Your task to perform on an android device: Search for "razer huntsman" on ebay.com, select the first entry, add it to the cart, then select checkout. Image 0: 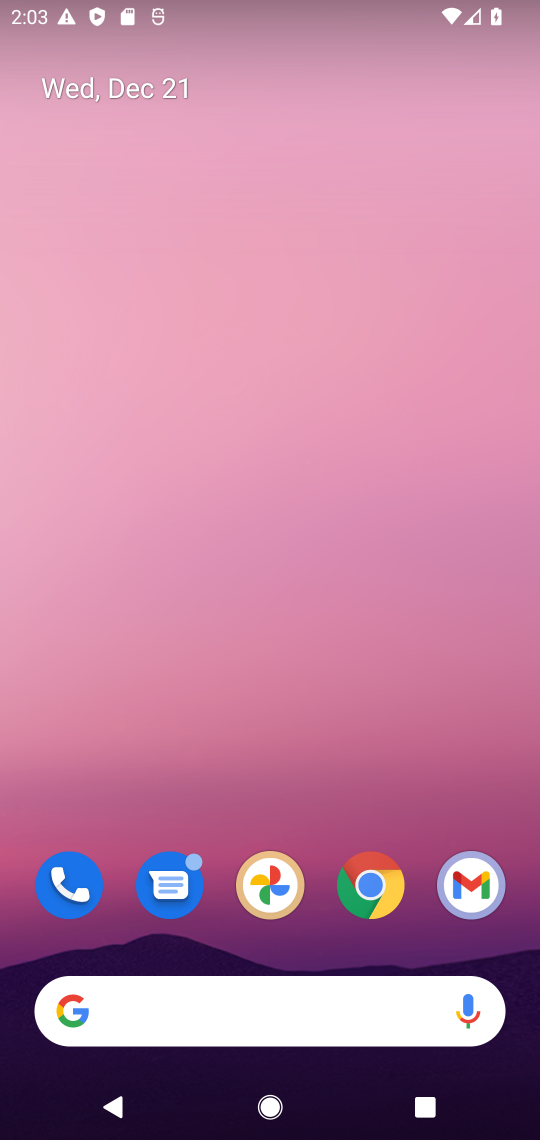
Step 0: drag from (278, 989) to (285, 538)
Your task to perform on an android device: Search for "razer huntsman" on ebay.com, select the first entry, add it to the cart, then select checkout. Image 1: 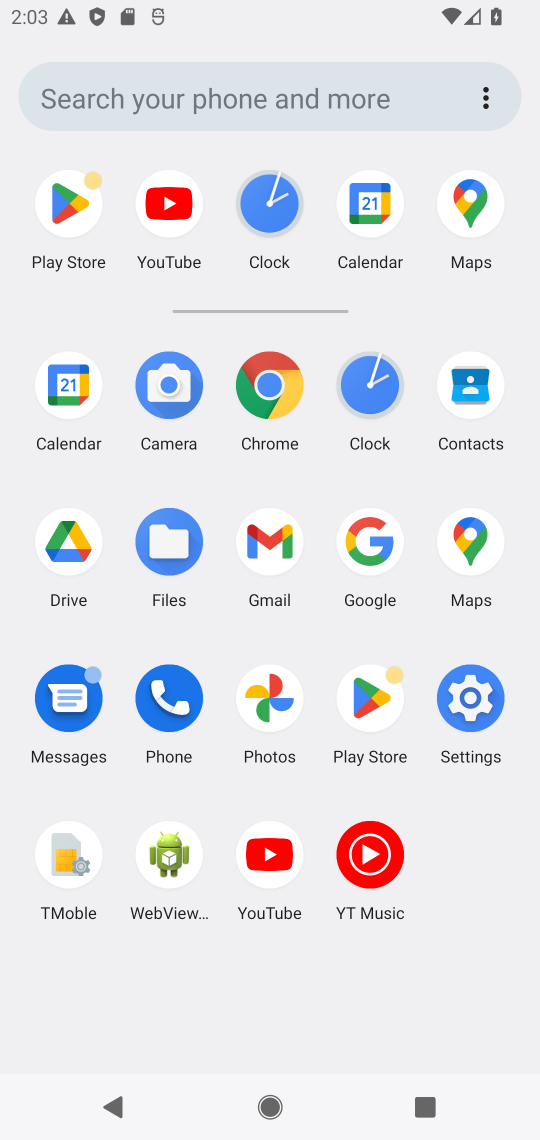
Step 1: click (371, 535)
Your task to perform on an android device: Search for "razer huntsman" on ebay.com, select the first entry, add it to the cart, then select checkout. Image 2: 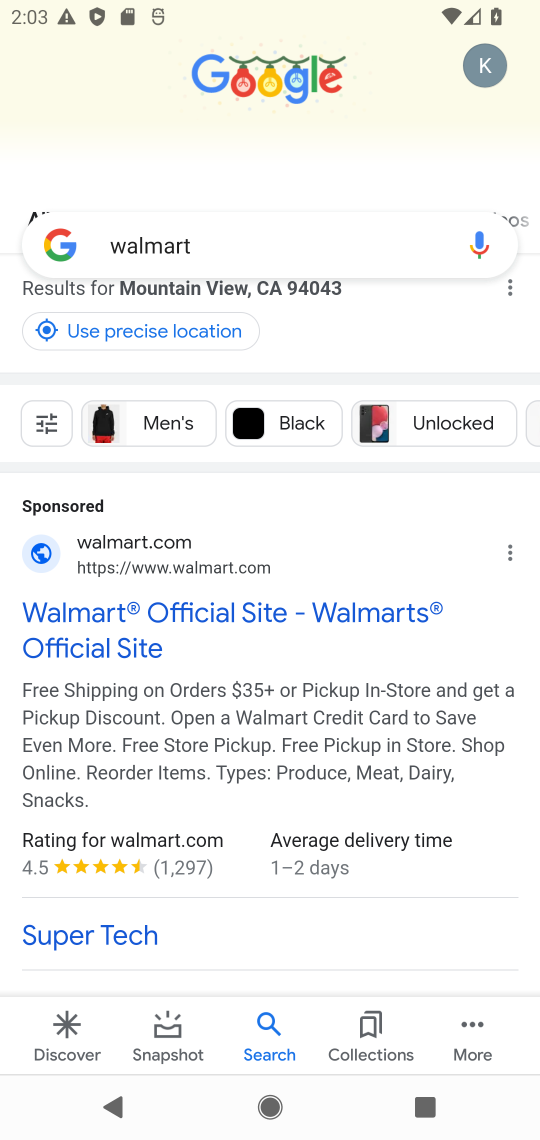
Step 2: click (158, 235)
Your task to perform on an android device: Search for "razer huntsman" on ebay.com, select the first entry, add it to the cart, then select checkout. Image 3: 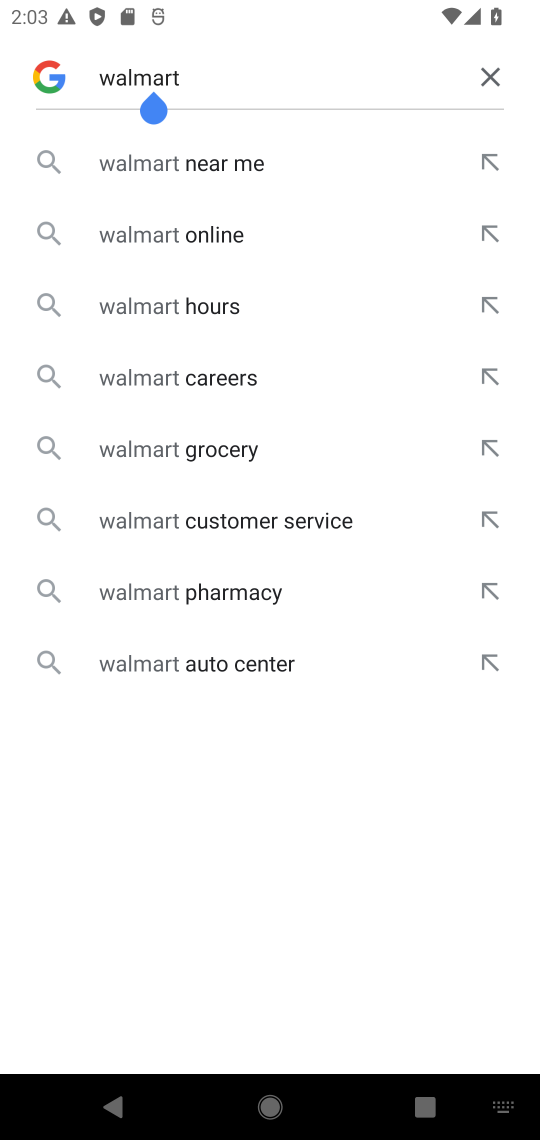
Step 3: click (491, 85)
Your task to perform on an android device: Search for "razer huntsman" on ebay.com, select the first entry, add it to the cart, then select checkout. Image 4: 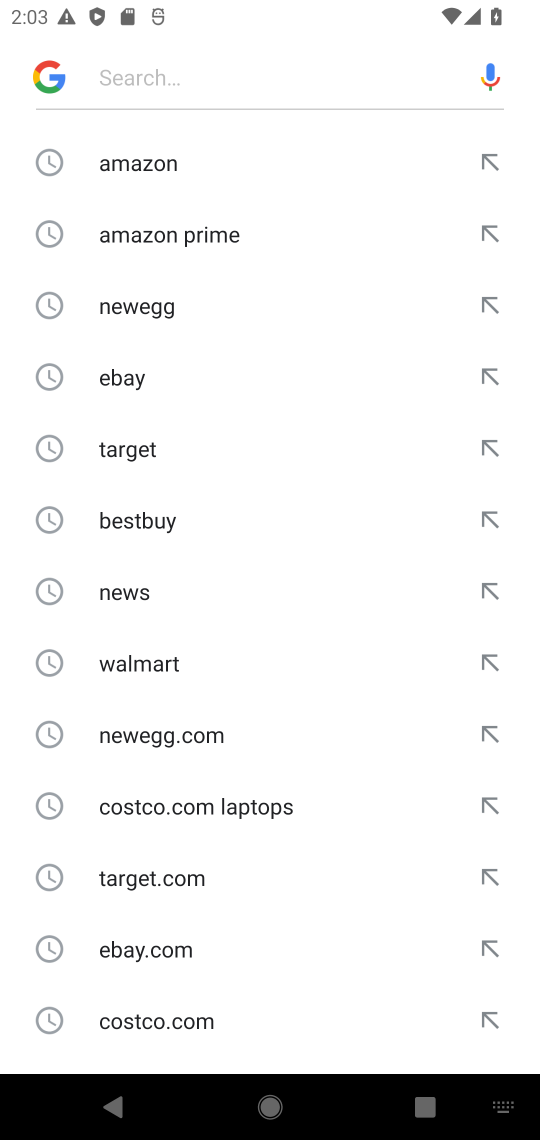
Step 4: click (118, 371)
Your task to perform on an android device: Search for "razer huntsman" on ebay.com, select the first entry, add it to the cart, then select checkout. Image 5: 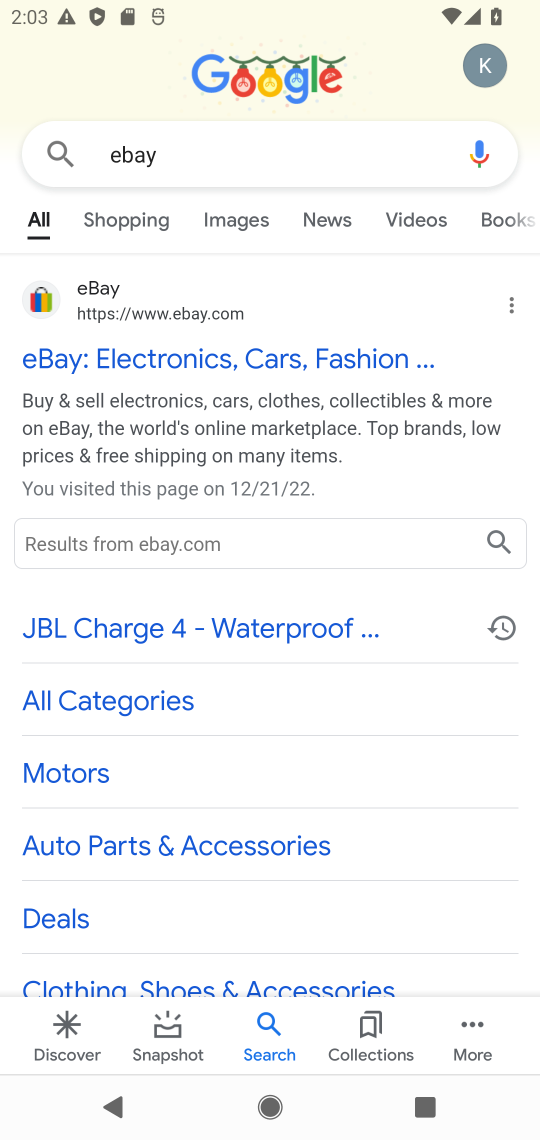
Step 5: click (160, 150)
Your task to perform on an android device: Search for "razer huntsman" on ebay.com, select the first entry, add it to the cart, then select checkout. Image 6: 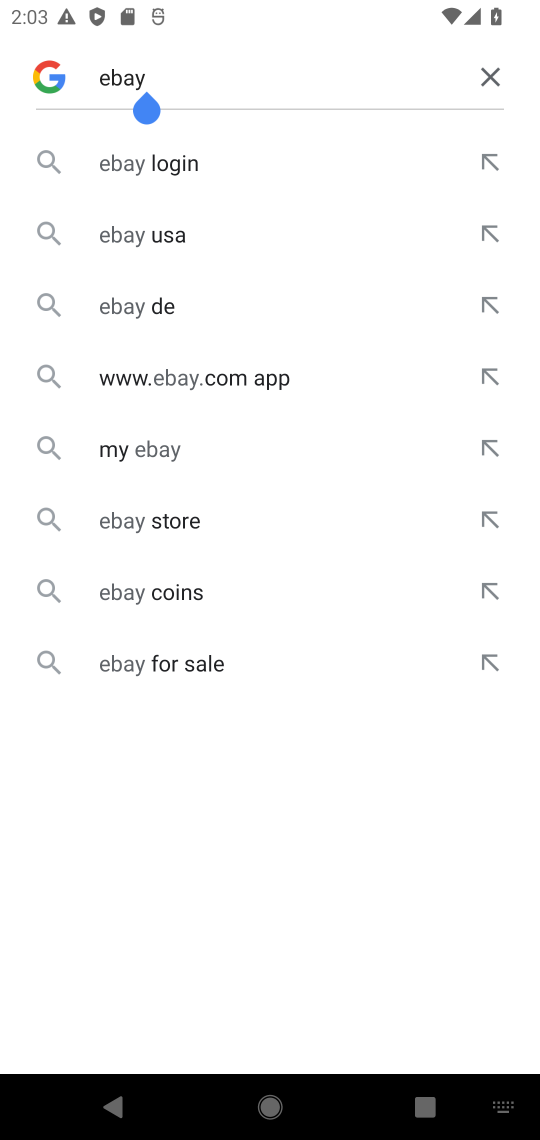
Step 6: click (490, 80)
Your task to perform on an android device: Search for "razer huntsman" on ebay.com, select the first entry, add it to the cart, then select checkout. Image 7: 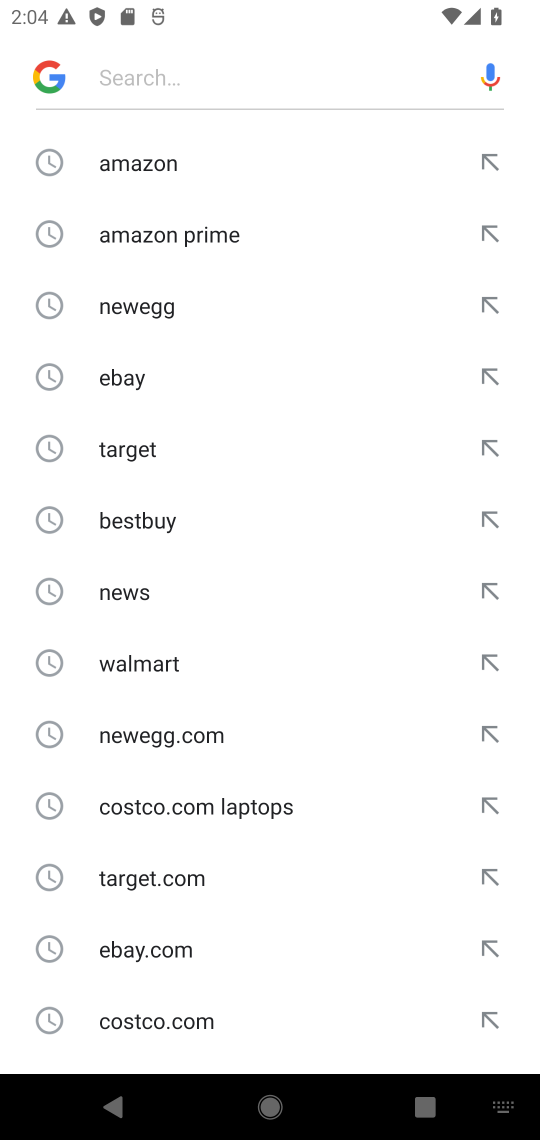
Step 7: click (128, 367)
Your task to perform on an android device: Search for "razer huntsman" on ebay.com, select the first entry, add it to the cart, then select checkout. Image 8: 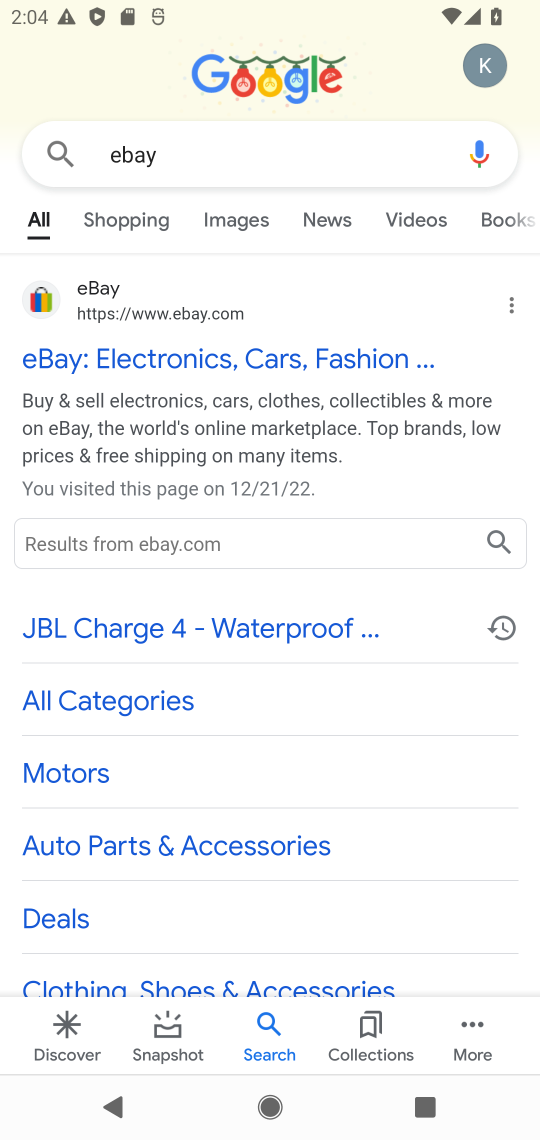
Step 8: click (128, 367)
Your task to perform on an android device: Search for "razer huntsman" on ebay.com, select the first entry, add it to the cart, then select checkout. Image 9: 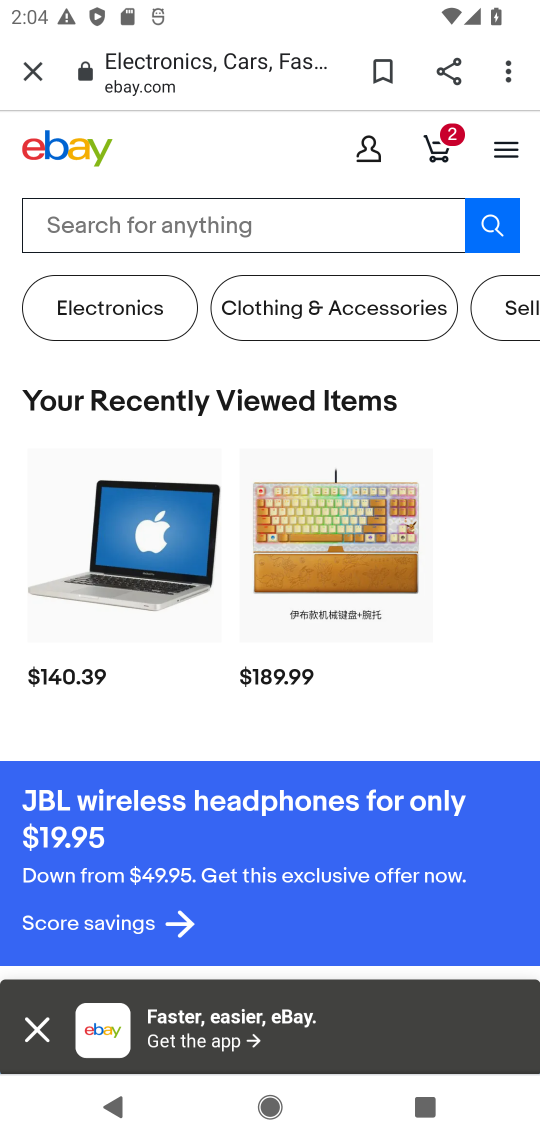
Step 9: click (82, 224)
Your task to perform on an android device: Search for "razer huntsman" on ebay.com, select the first entry, add it to the cart, then select checkout. Image 10: 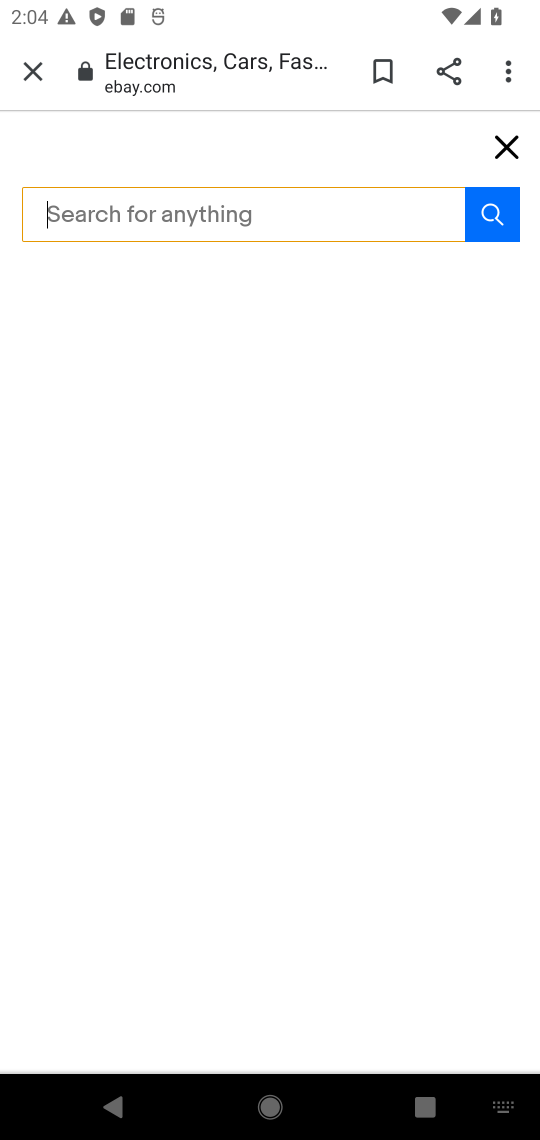
Step 10: type "razer huntsman"
Your task to perform on an android device: Search for "razer huntsman" on ebay.com, select the first entry, add it to the cart, then select checkout. Image 11: 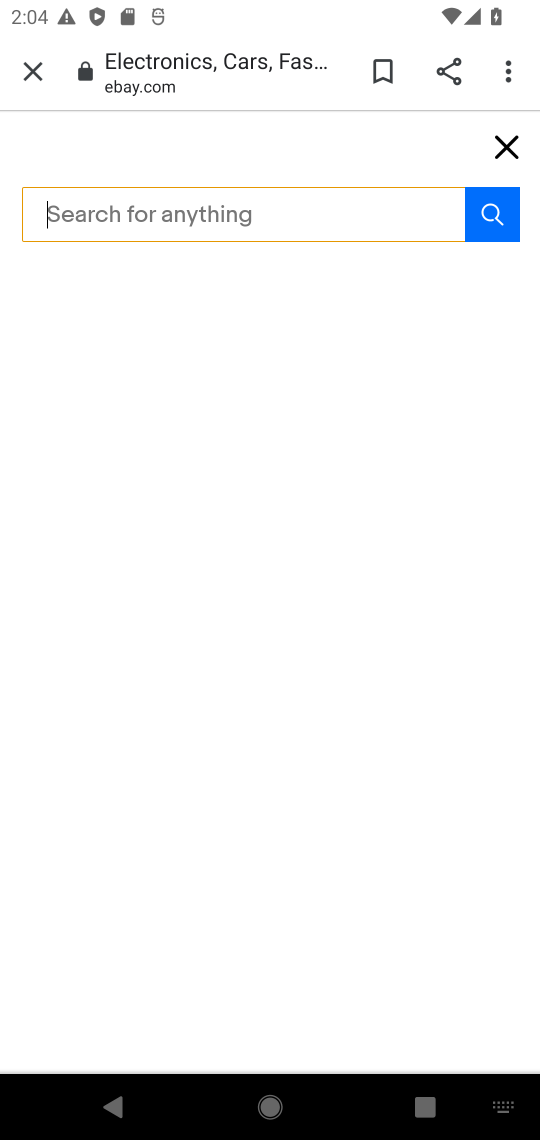
Step 11: click (485, 213)
Your task to perform on an android device: Search for "razer huntsman" on ebay.com, select the first entry, add it to the cart, then select checkout. Image 12: 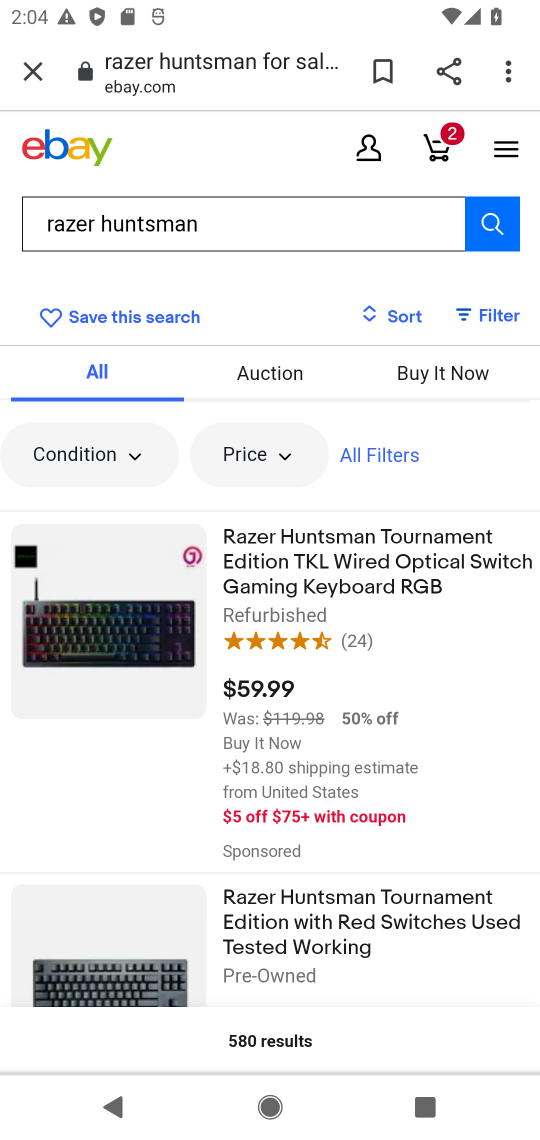
Step 12: click (293, 553)
Your task to perform on an android device: Search for "razer huntsman" on ebay.com, select the first entry, add it to the cart, then select checkout. Image 13: 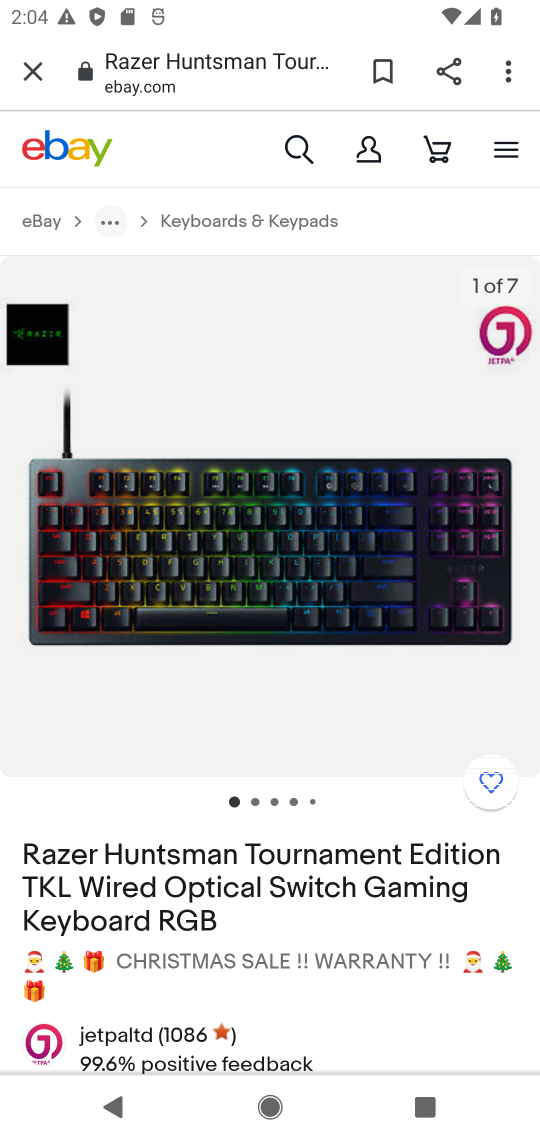
Step 13: drag from (295, 948) to (330, 675)
Your task to perform on an android device: Search for "razer huntsman" on ebay.com, select the first entry, add it to the cart, then select checkout. Image 14: 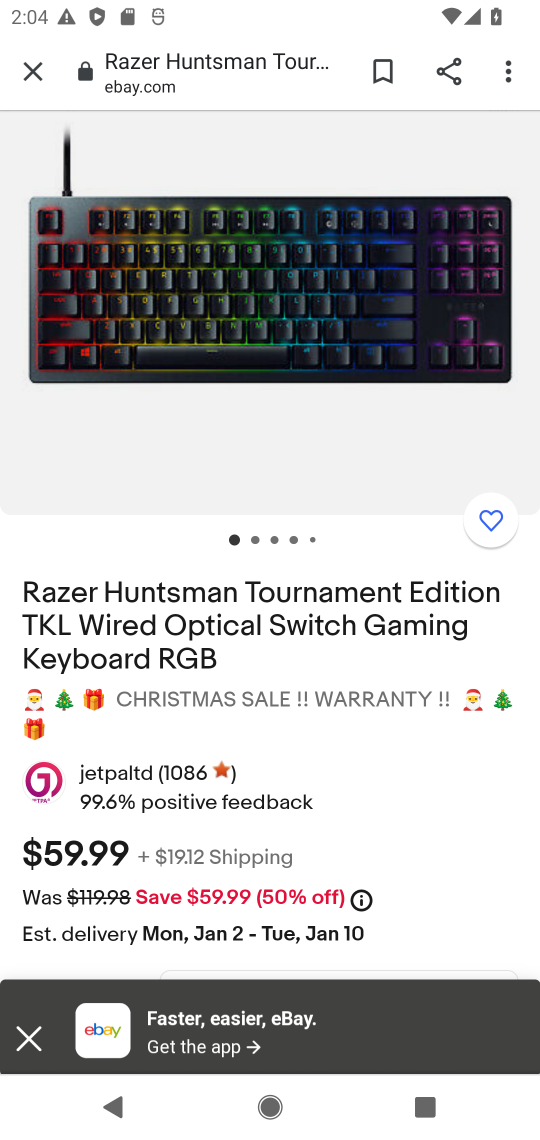
Step 14: drag from (314, 822) to (318, 560)
Your task to perform on an android device: Search for "razer huntsman" on ebay.com, select the first entry, add it to the cart, then select checkout. Image 15: 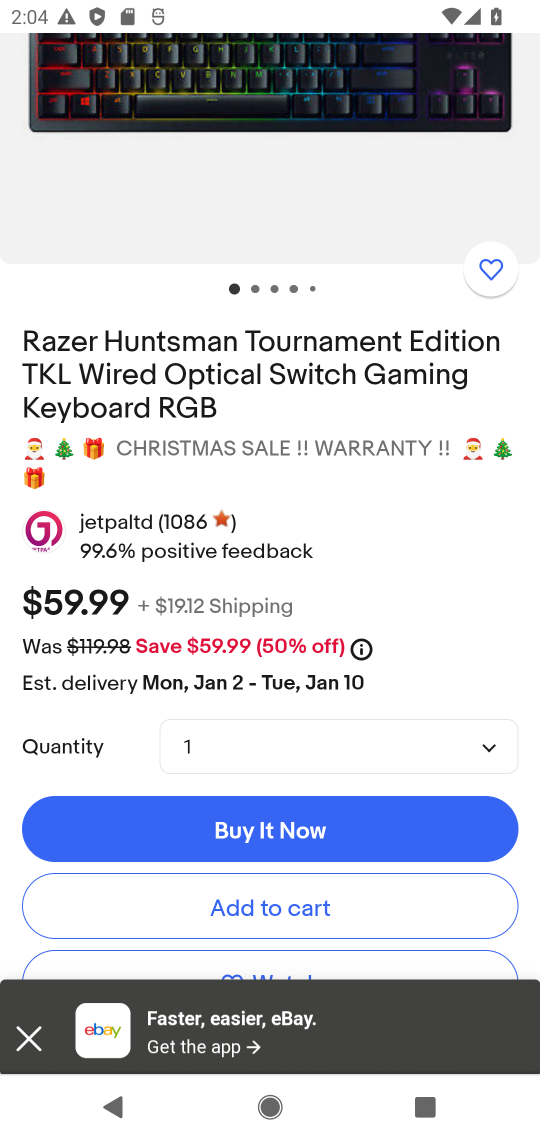
Step 15: click (253, 921)
Your task to perform on an android device: Search for "razer huntsman" on ebay.com, select the first entry, add it to the cart, then select checkout. Image 16: 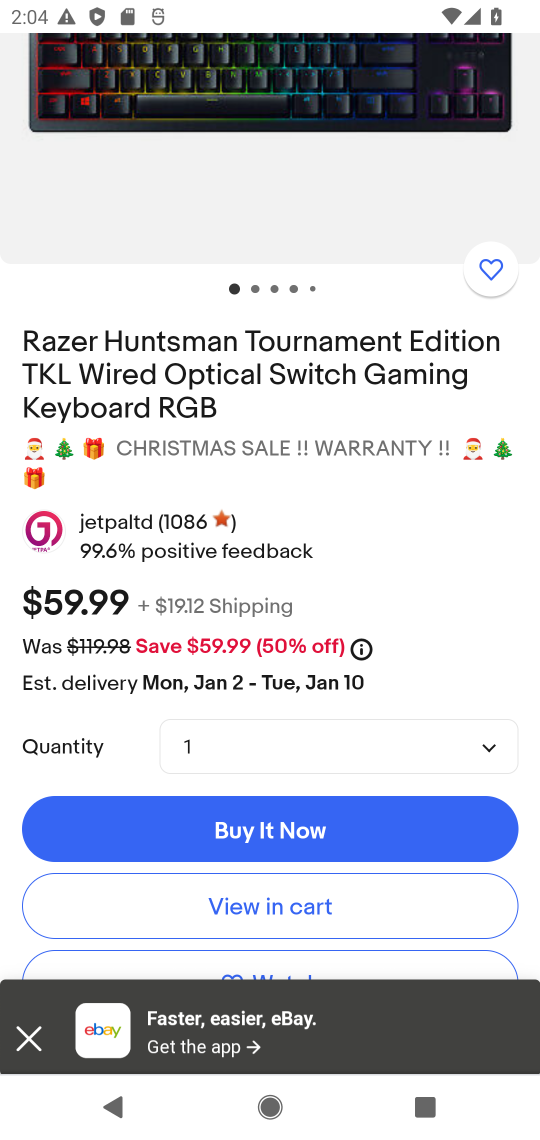
Step 16: click (253, 921)
Your task to perform on an android device: Search for "razer huntsman" on ebay.com, select the first entry, add it to the cart, then select checkout. Image 17: 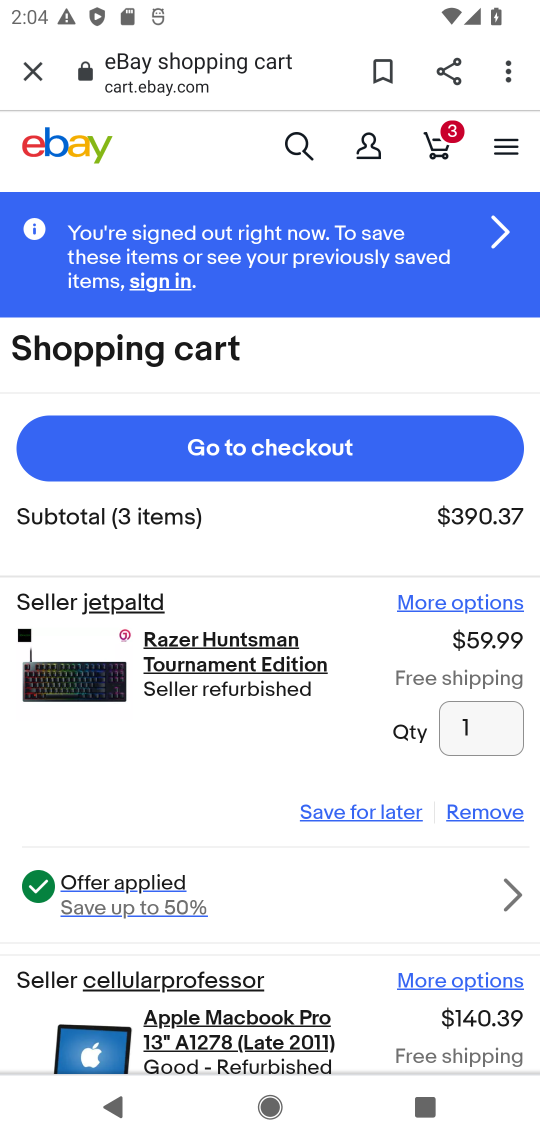
Step 17: click (311, 431)
Your task to perform on an android device: Search for "razer huntsman" on ebay.com, select the first entry, add it to the cart, then select checkout. Image 18: 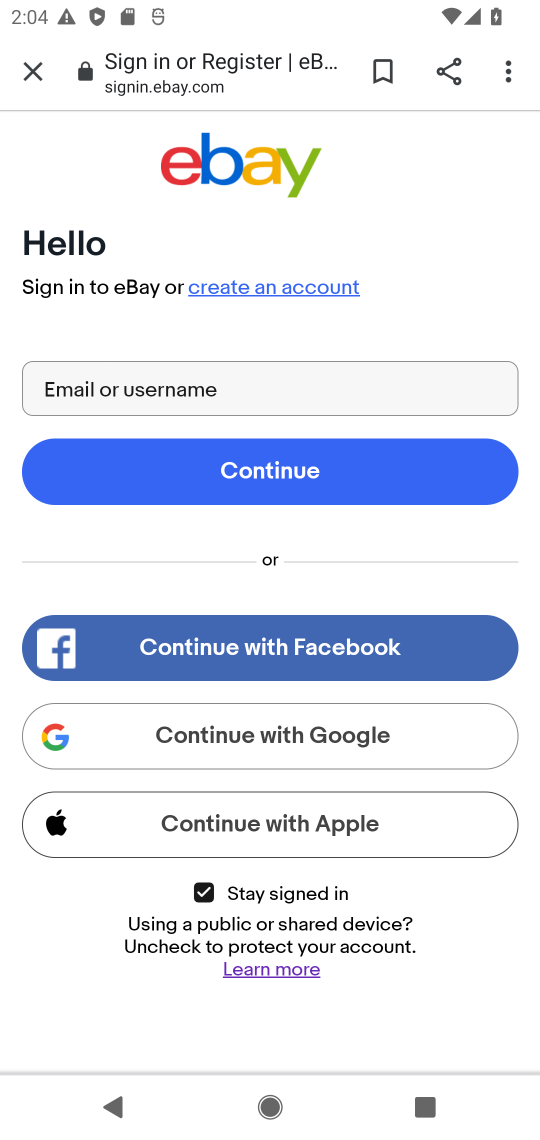
Step 18: task complete